Your task to perform on an android device: see creations saved in the google photos Image 0: 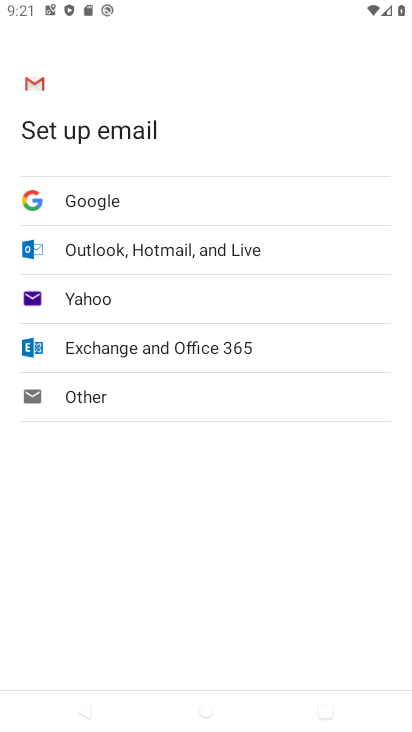
Step 0: press home button
Your task to perform on an android device: see creations saved in the google photos Image 1: 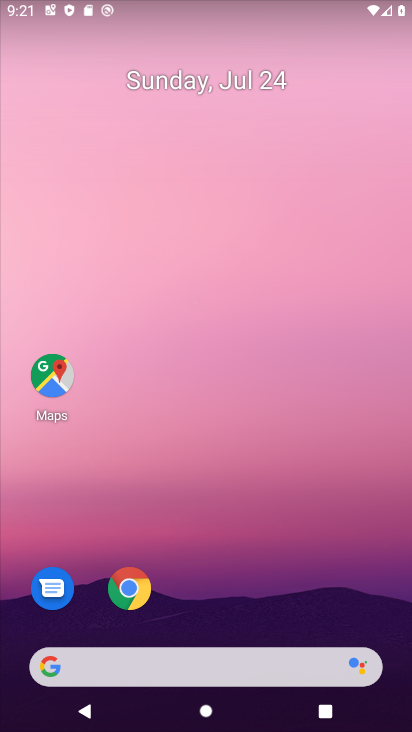
Step 1: drag from (259, 600) to (222, 3)
Your task to perform on an android device: see creations saved in the google photos Image 2: 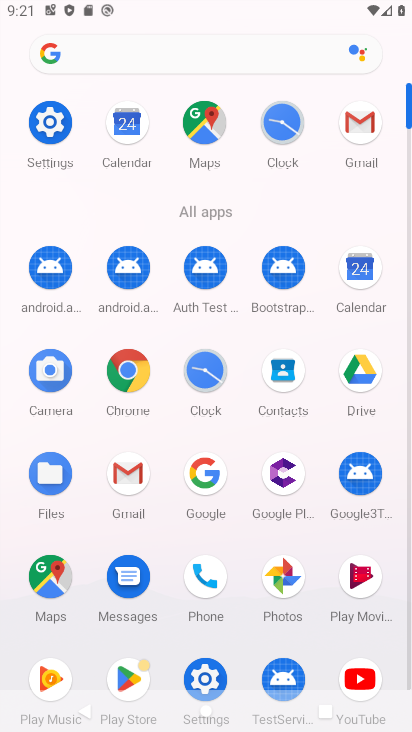
Step 2: click (284, 579)
Your task to perform on an android device: see creations saved in the google photos Image 3: 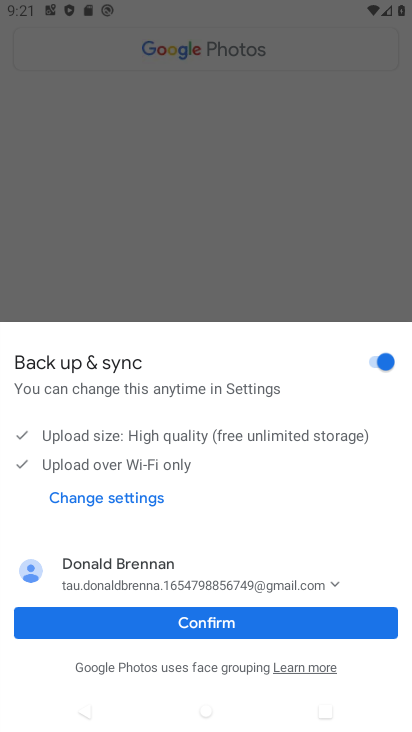
Step 3: click (186, 616)
Your task to perform on an android device: see creations saved in the google photos Image 4: 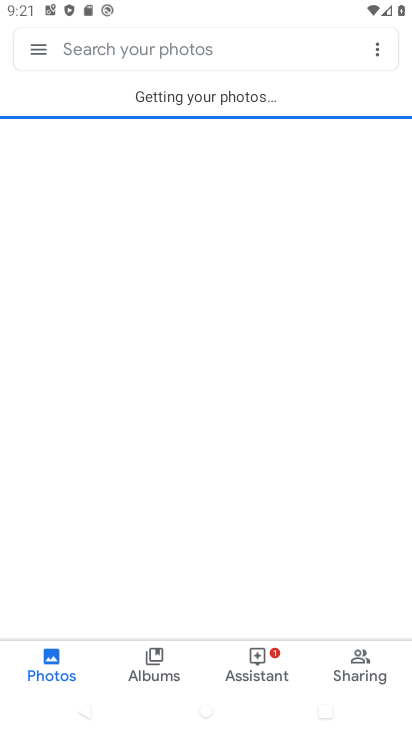
Step 4: click (103, 51)
Your task to perform on an android device: see creations saved in the google photos Image 5: 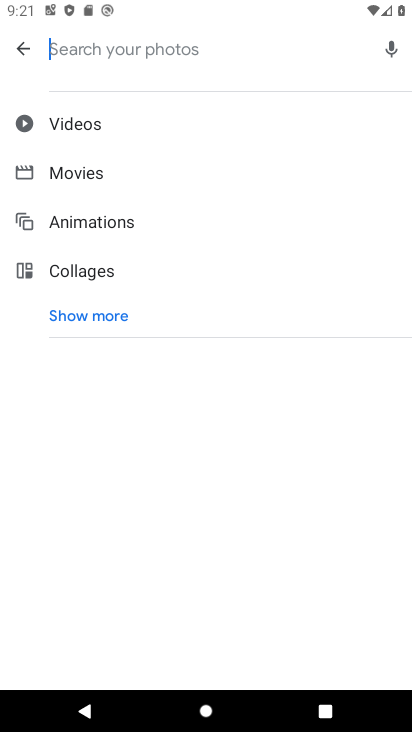
Step 5: click (96, 317)
Your task to perform on an android device: see creations saved in the google photos Image 6: 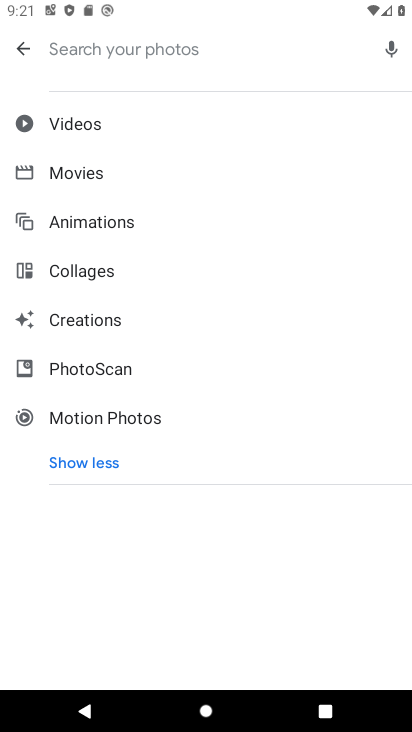
Step 6: click (96, 317)
Your task to perform on an android device: see creations saved in the google photos Image 7: 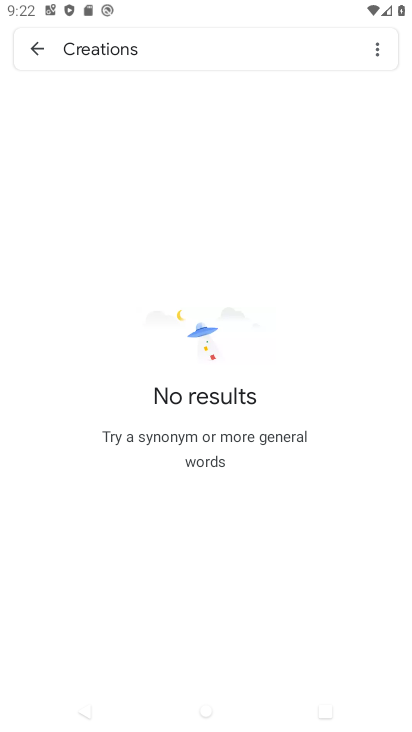
Step 7: task complete